Your task to perform on an android device: Show me popular games on the Play Store Image 0: 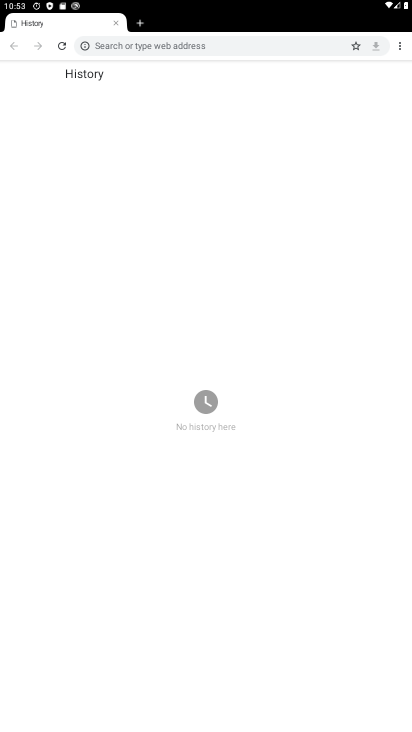
Step 0: press home button
Your task to perform on an android device: Show me popular games on the Play Store Image 1: 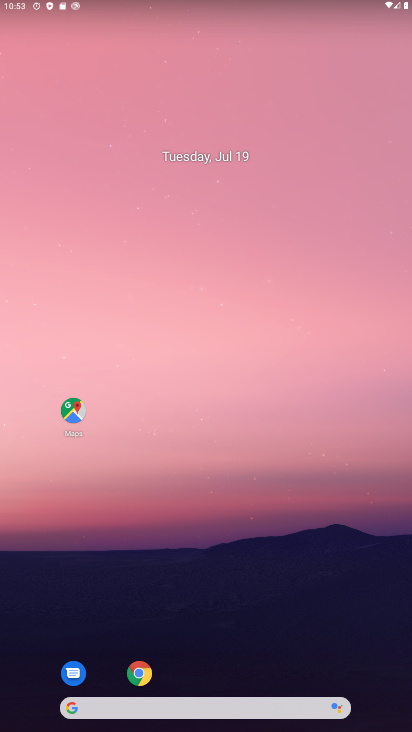
Step 1: drag from (233, 673) to (234, 201)
Your task to perform on an android device: Show me popular games on the Play Store Image 2: 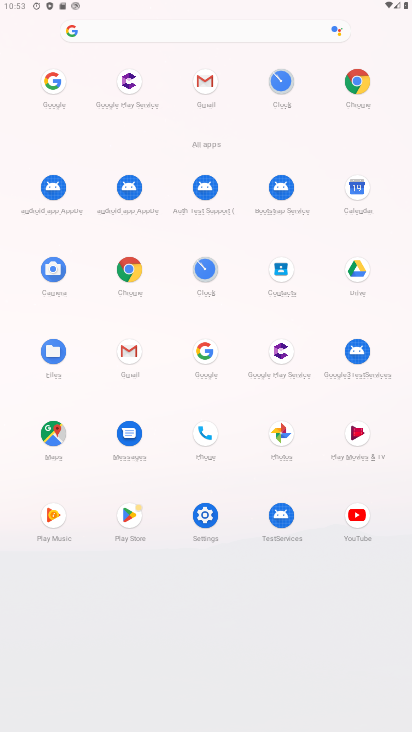
Step 2: click (127, 516)
Your task to perform on an android device: Show me popular games on the Play Store Image 3: 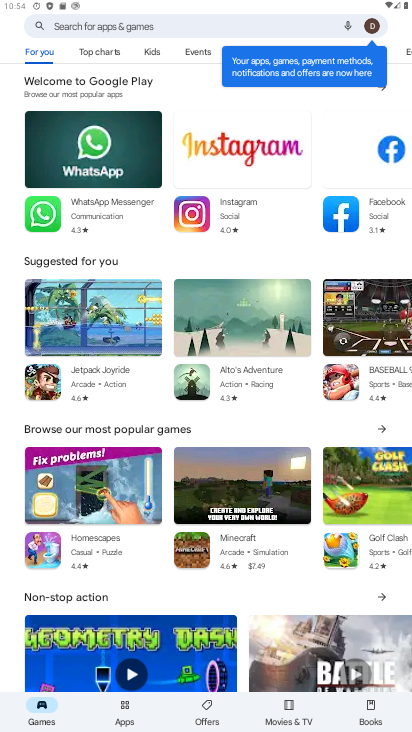
Step 3: click (385, 428)
Your task to perform on an android device: Show me popular games on the Play Store Image 4: 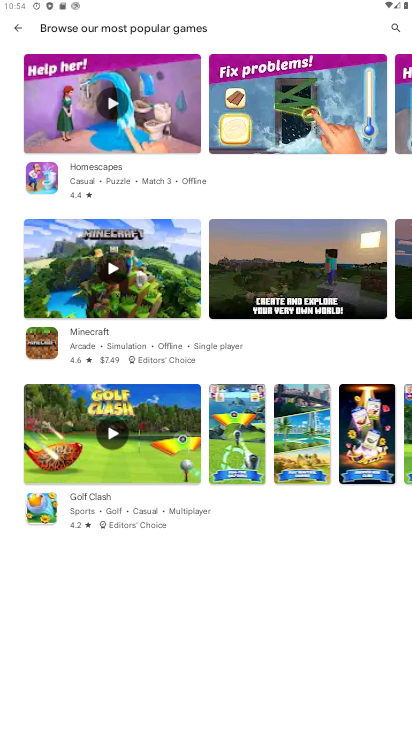
Step 4: task complete